Your task to perform on an android device: refresh tabs in the chrome app Image 0: 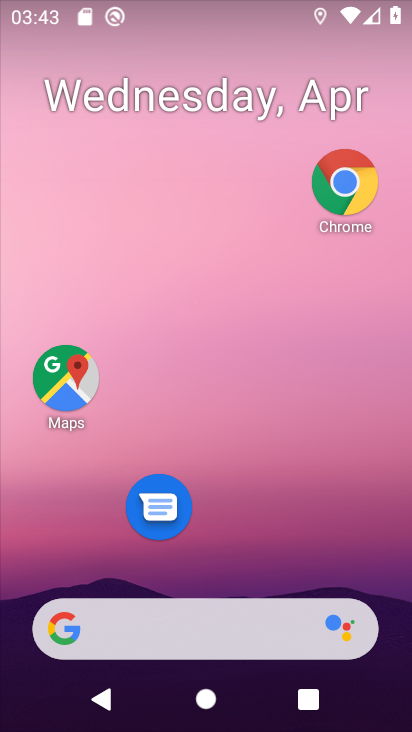
Step 0: drag from (246, 506) to (268, 149)
Your task to perform on an android device: refresh tabs in the chrome app Image 1: 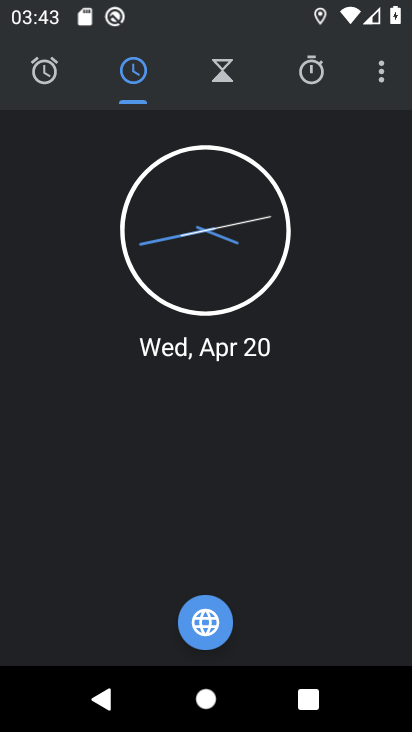
Step 1: press home button
Your task to perform on an android device: refresh tabs in the chrome app Image 2: 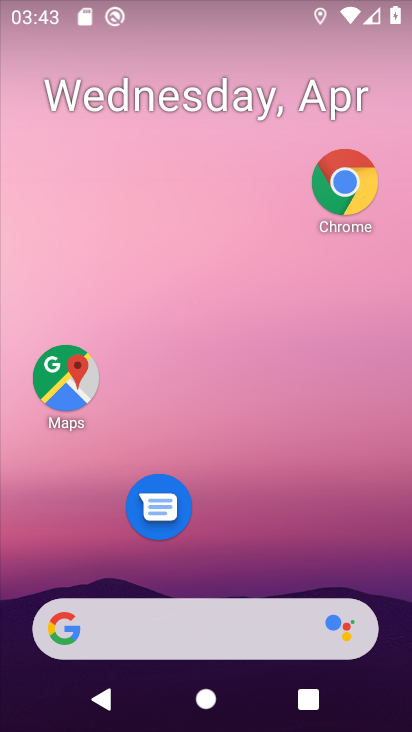
Step 2: click (334, 230)
Your task to perform on an android device: refresh tabs in the chrome app Image 3: 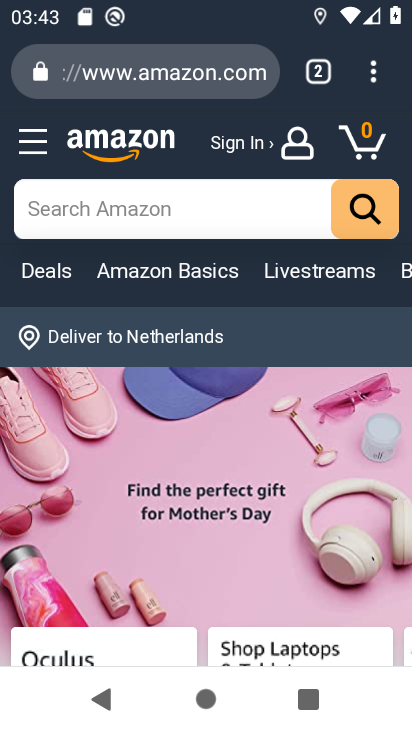
Step 3: click (375, 66)
Your task to perform on an android device: refresh tabs in the chrome app Image 4: 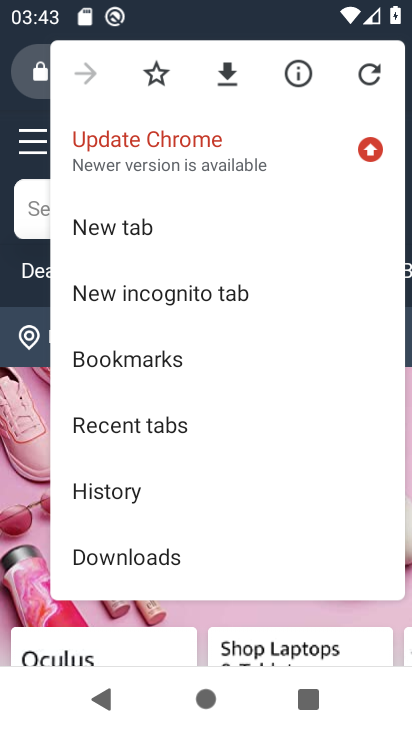
Step 4: click (363, 58)
Your task to perform on an android device: refresh tabs in the chrome app Image 5: 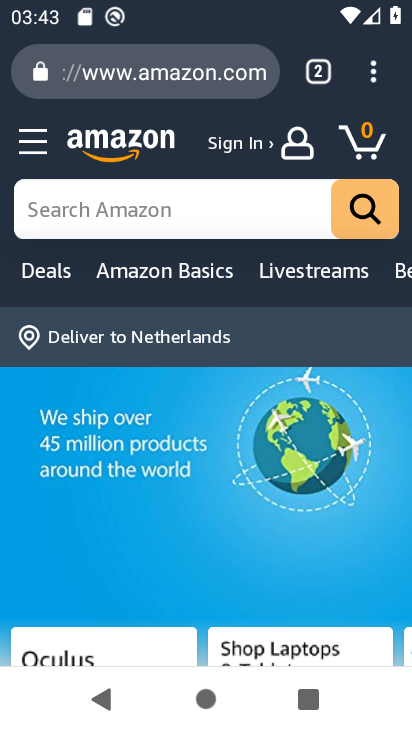
Step 5: task complete